Your task to perform on an android device: What's on my calendar tomorrow? Image 0: 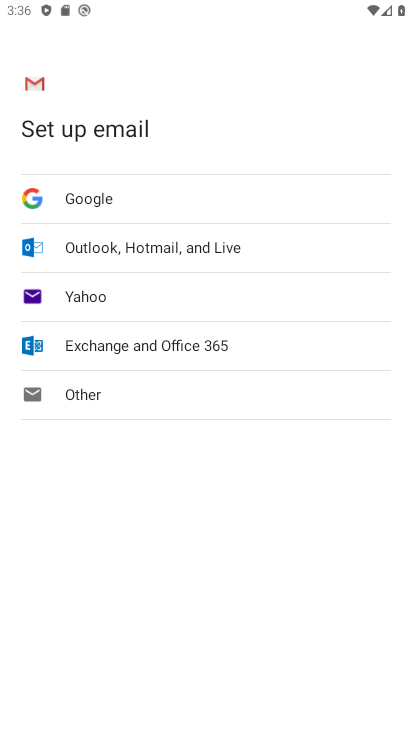
Step 0: drag from (260, 615) to (248, 398)
Your task to perform on an android device: What's on my calendar tomorrow? Image 1: 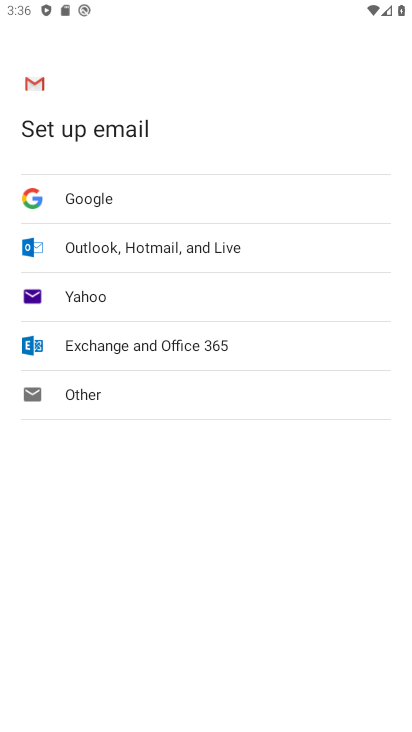
Step 1: press home button
Your task to perform on an android device: What's on my calendar tomorrow? Image 2: 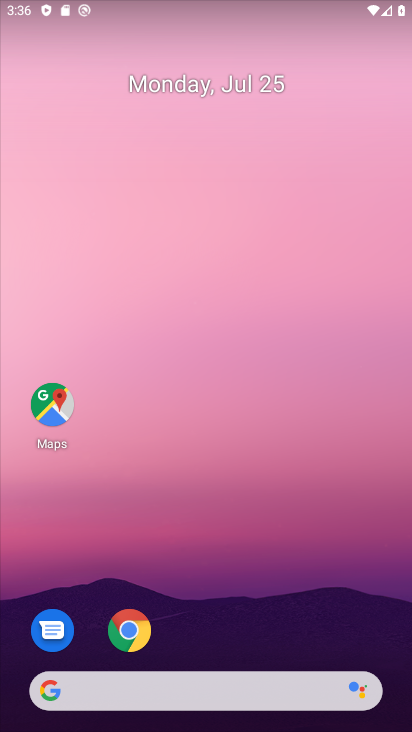
Step 2: drag from (198, 621) to (162, 206)
Your task to perform on an android device: What's on my calendar tomorrow? Image 3: 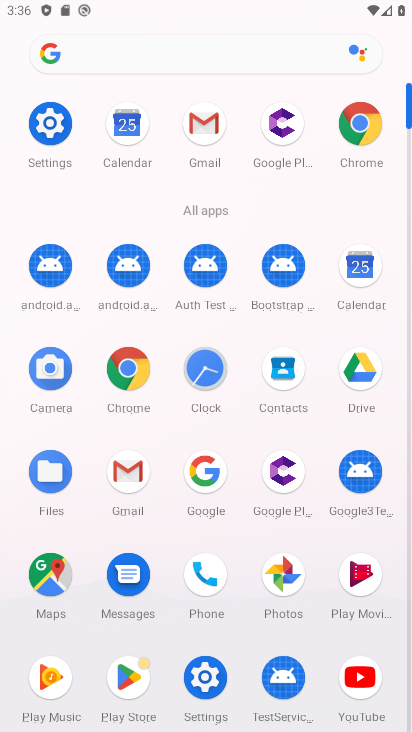
Step 3: click (367, 270)
Your task to perform on an android device: What's on my calendar tomorrow? Image 4: 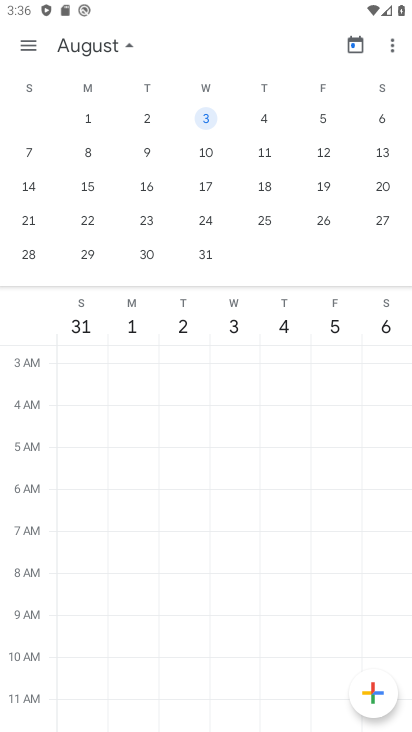
Step 4: click (29, 50)
Your task to perform on an android device: What's on my calendar tomorrow? Image 5: 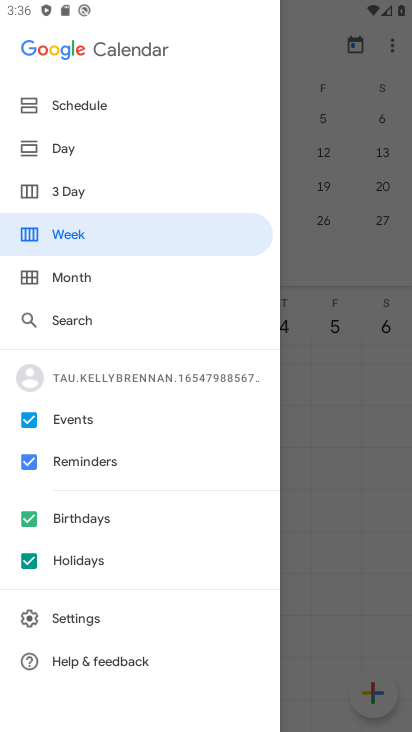
Step 5: click (121, 117)
Your task to perform on an android device: What's on my calendar tomorrow? Image 6: 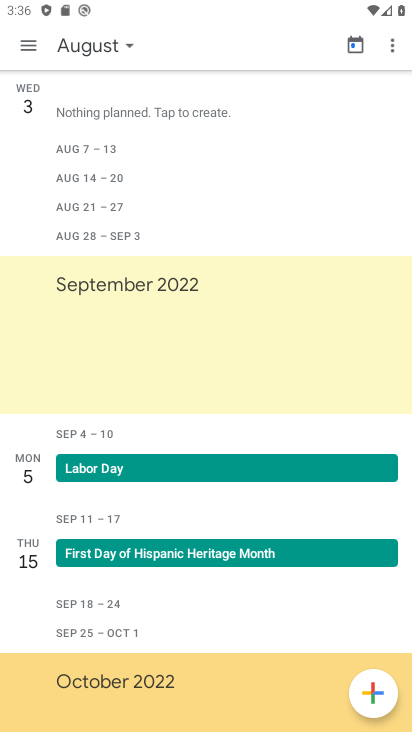
Step 6: task complete